Your task to perform on an android device: toggle sleep mode Image 0: 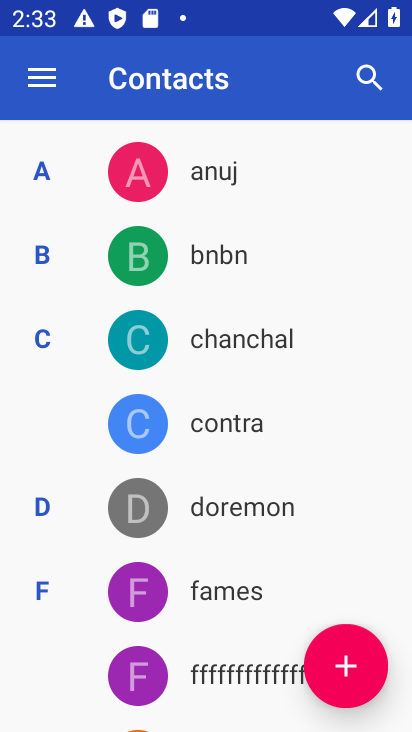
Step 0: press home button
Your task to perform on an android device: toggle sleep mode Image 1: 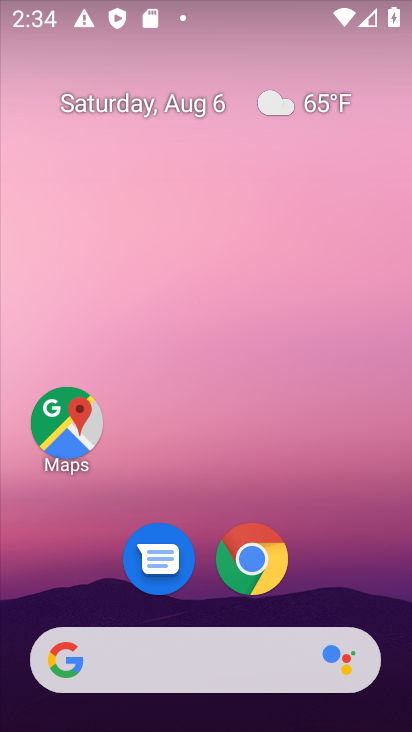
Step 1: task complete